Your task to perform on an android device: When is my next appointment? Image 0: 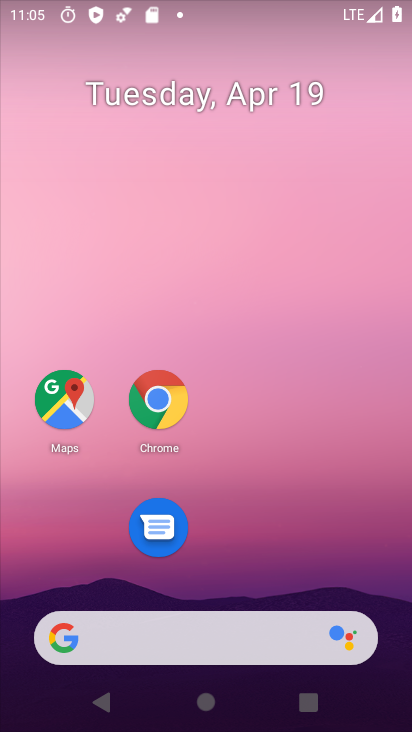
Step 0: drag from (253, 679) to (177, 183)
Your task to perform on an android device: When is my next appointment? Image 1: 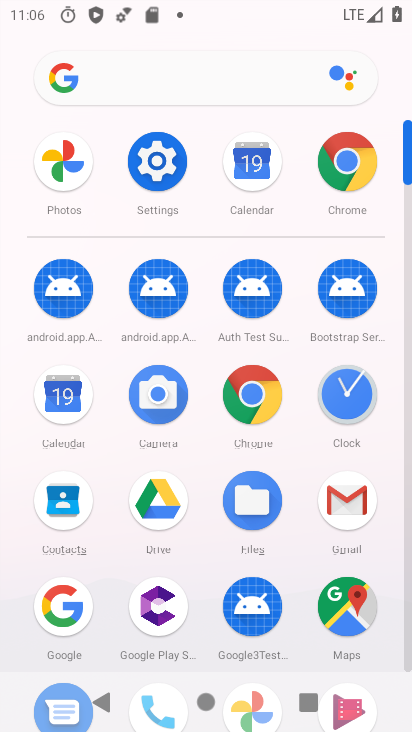
Step 1: click (73, 387)
Your task to perform on an android device: When is my next appointment? Image 2: 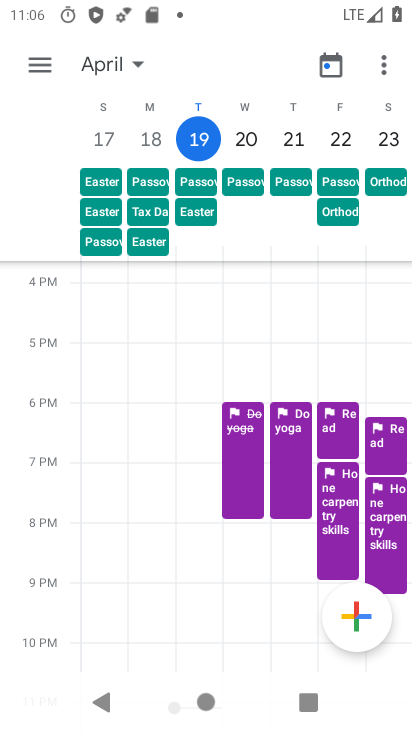
Step 2: click (43, 81)
Your task to perform on an android device: When is my next appointment? Image 3: 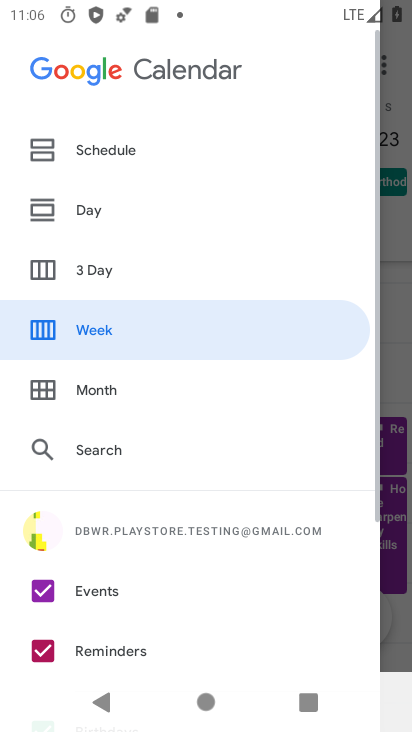
Step 3: click (106, 394)
Your task to perform on an android device: When is my next appointment? Image 4: 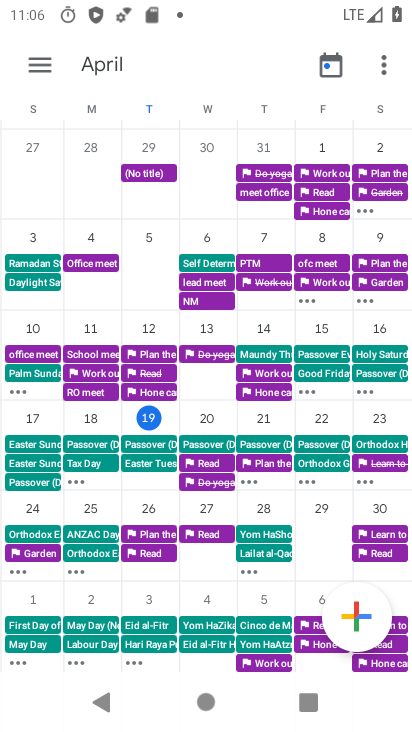
Step 4: drag from (376, 512) to (0, 442)
Your task to perform on an android device: When is my next appointment? Image 5: 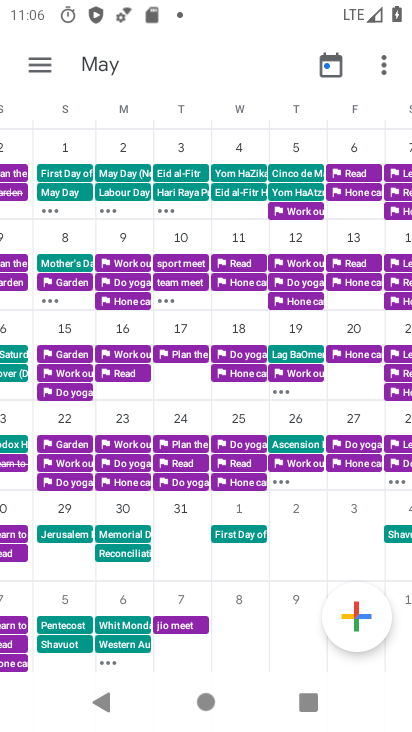
Step 5: drag from (52, 343) to (386, 163)
Your task to perform on an android device: When is my next appointment? Image 6: 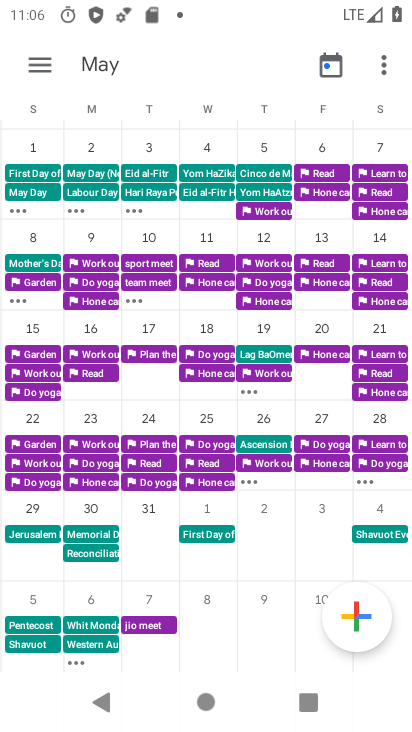
Step 6: drag from (17, 249) to (130, 289)
Your task to perform on an android device: When is my next appointment? Image 7: 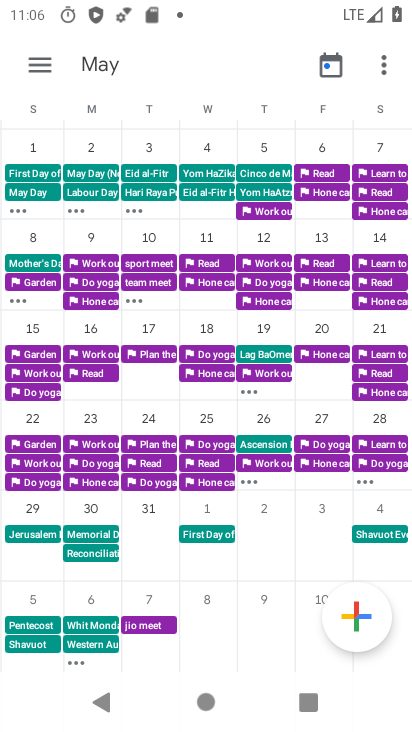
Step 7: drag from (38, 225) to (338, 73)
Your task to perform on an android device: When is my next appointment? Image 8: 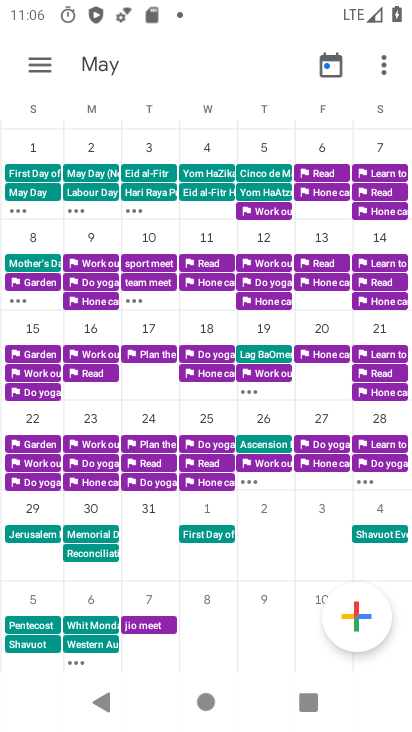
Step 8: click (28, 68)
Your task to perform on an android device: When is my next appointment? Image 9: 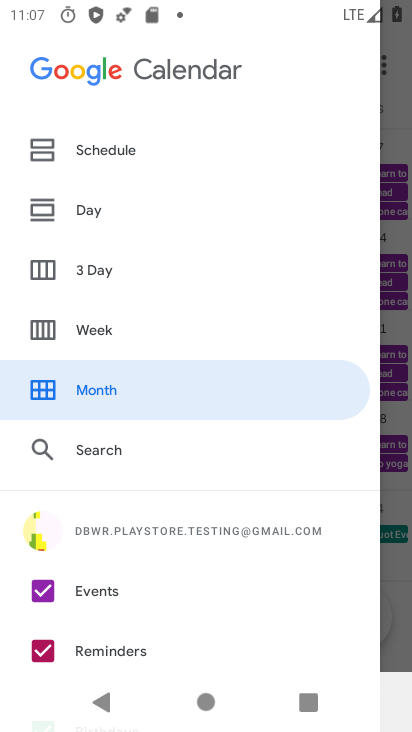
Step 9: click (107, 153)
Your task to perform on an android device: When is my next appointment? Image 10: 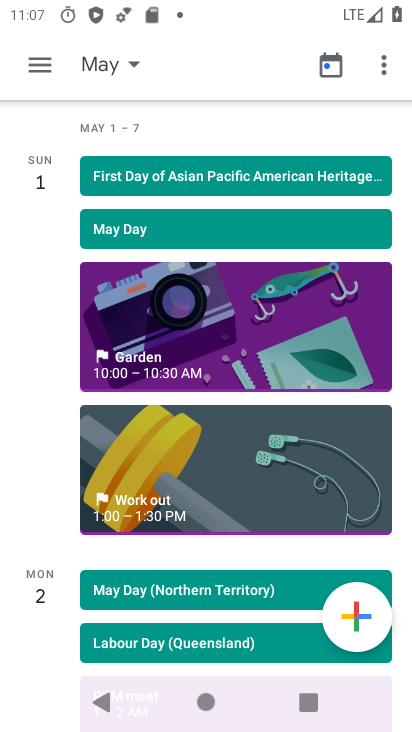
Step 10: task complete